Your task to perform on an android device: Open Amazon Image 0: 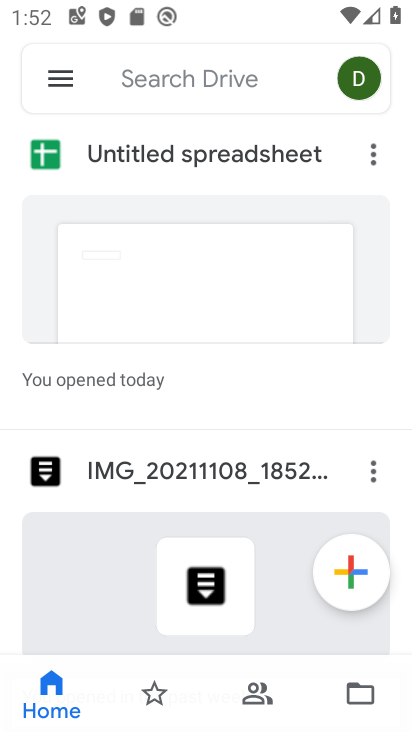
Step 0: press home button
Your task to perform on an android device: Open Amazon Image 1: 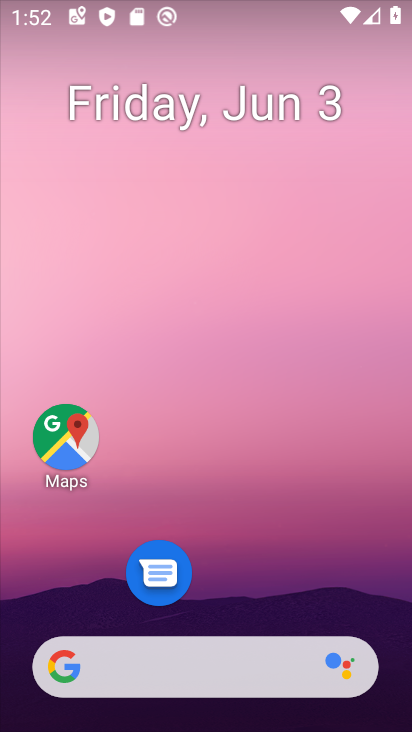
Step 1: drag from (317, 656) to (397, 171)
Your task to perform on an android device: Open Amazon Image 2: 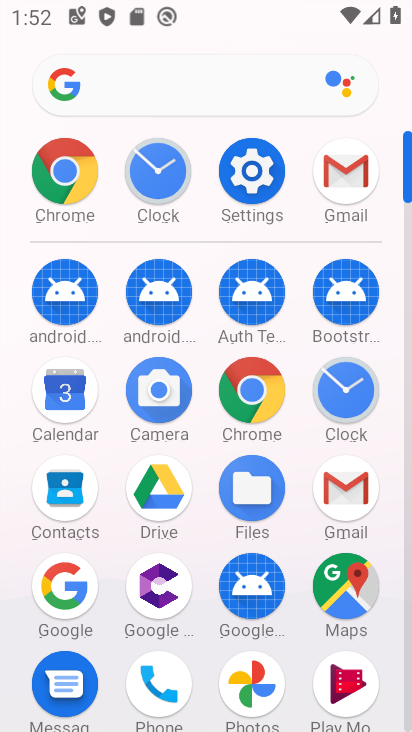
Step 2: click (270, 388)
Your task to perform on an android device: Open Amazon Image 3: 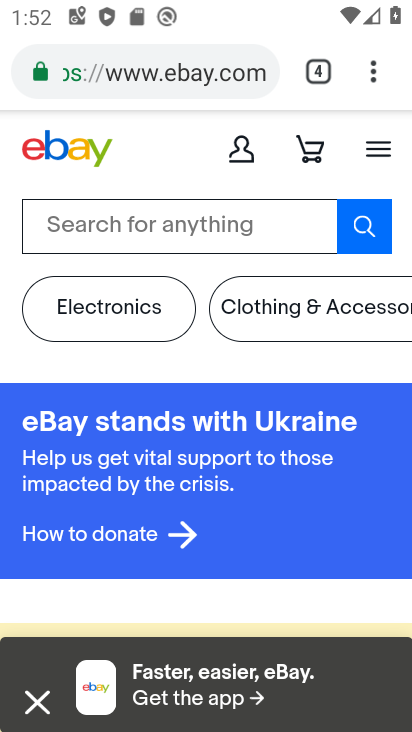
Step 3: drag from (369, 67) to (291, 127)
Your task to perform on an android device: Open Amazon Image 4: 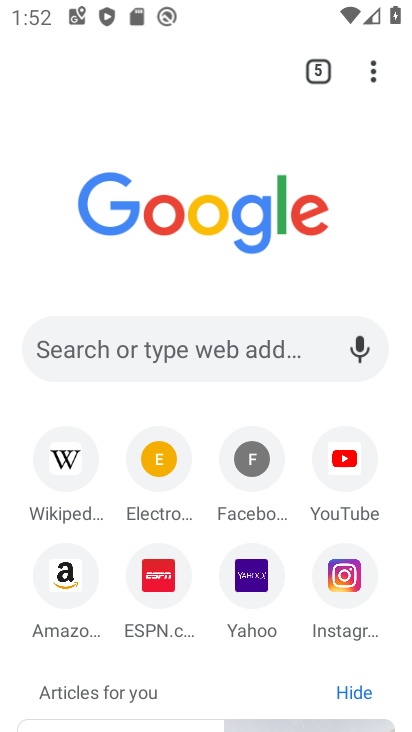
Step 4: click (72, 589)
Your task to perform on an android device: Open Amazon Image 5: 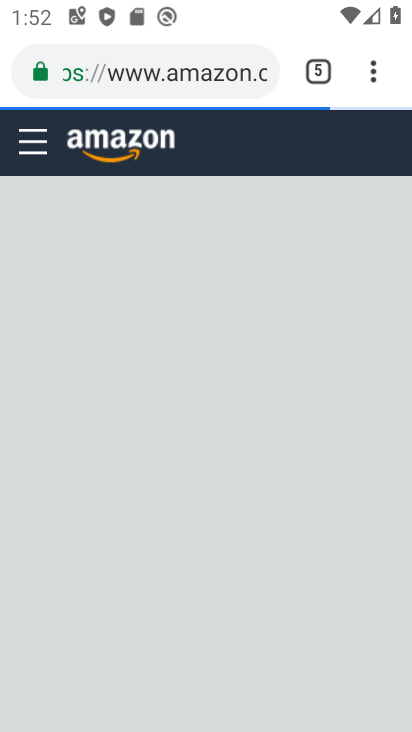
Step 5: task complete